Your task to perform on an android device: Open Reddit.com Image 0: 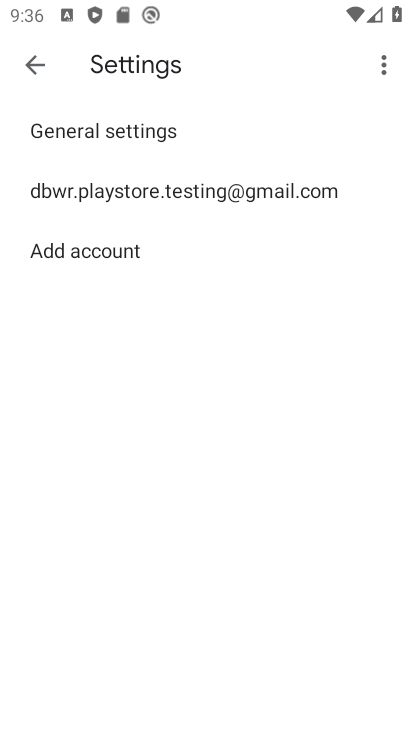
Step 0: press home button
Your task to perform on an android device: Open Reddit.com Image 1: 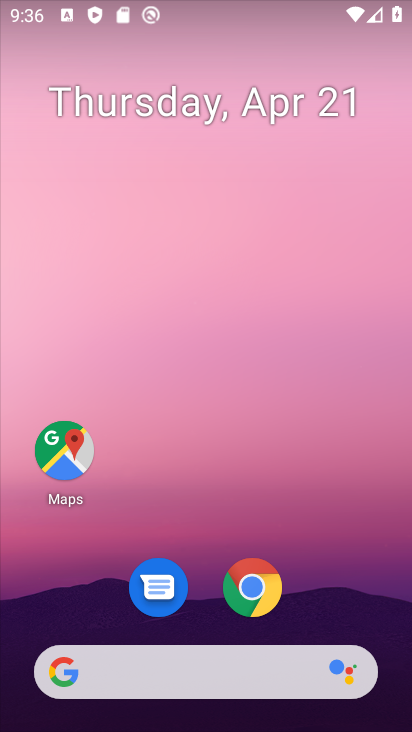
Step 1: click (253, 586)
Your task to perform on an android device: Open Reddit.com Image 2: 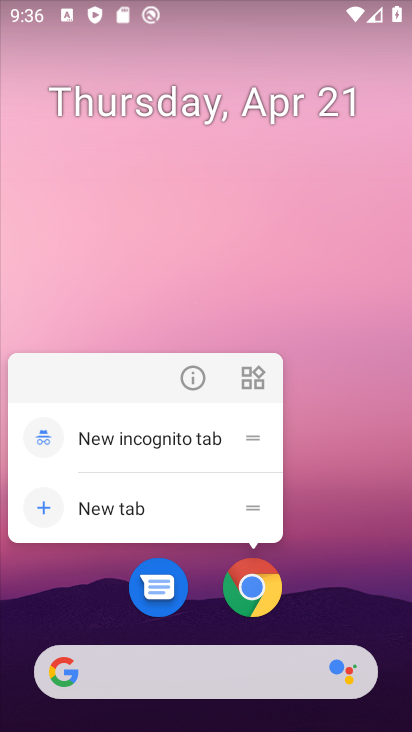
Step 2: click (202, 375)
Your task to perform on an android device: Open Reddit.com Image 3: 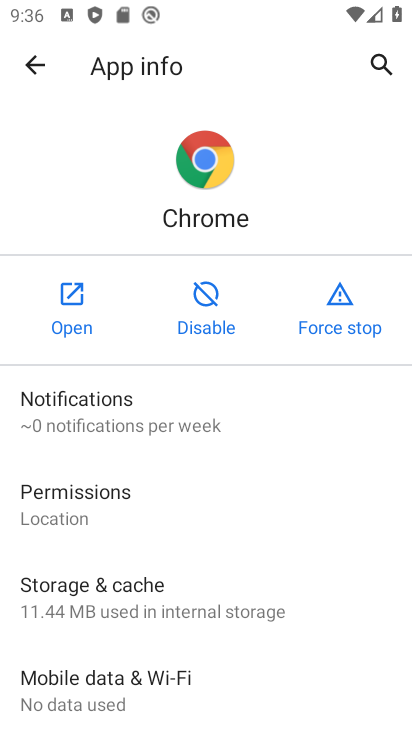
Step 3: click (70, 316)
Your task to perform on an android device: Open Reddit.com Image 4: 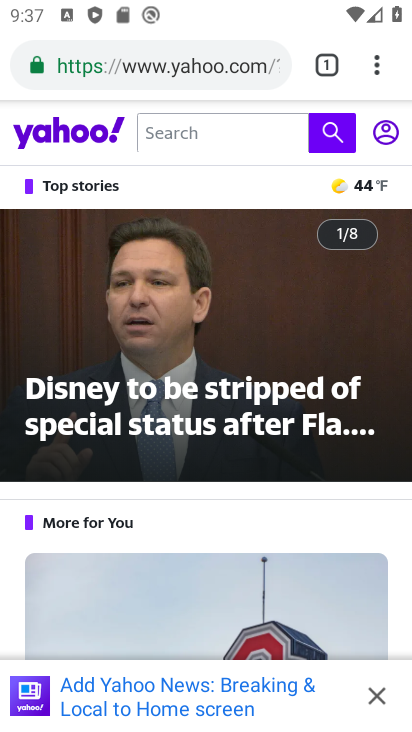
Step 4: click (330, 70)
Your task to perform on an android device: Open Reddit.com Image 5: 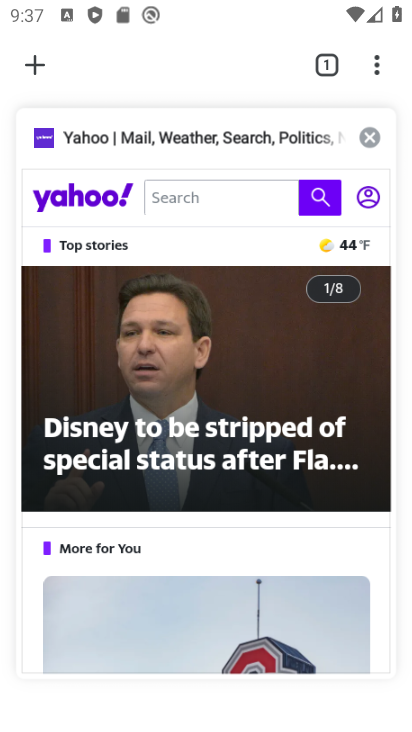
Step 5: click (321, 61)
Your task to perform on an android device: Open Reddit.com Image 6: 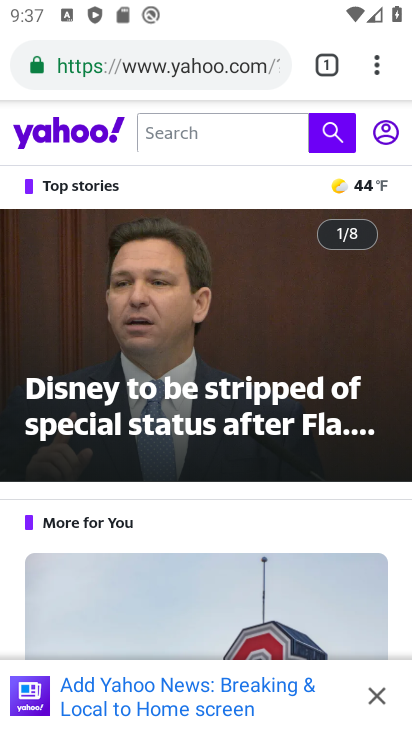
Step 6: click (328, 70)
Your task to perform on an android device: Open Reddit.com Image 7: 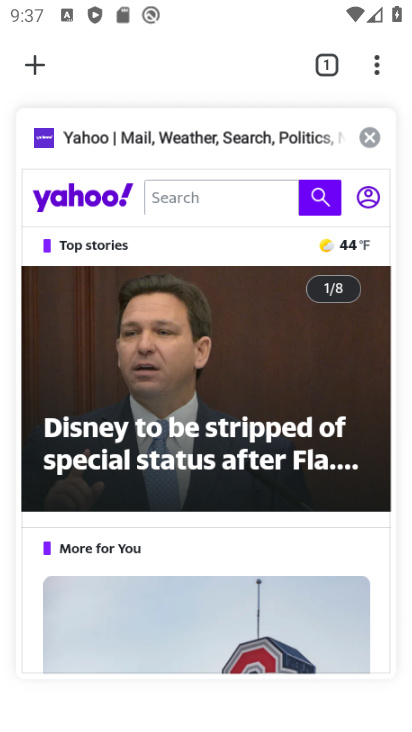
Step 7: click (375, 134)
Your task to perform on an android device: Open Reddit.com Image 8: 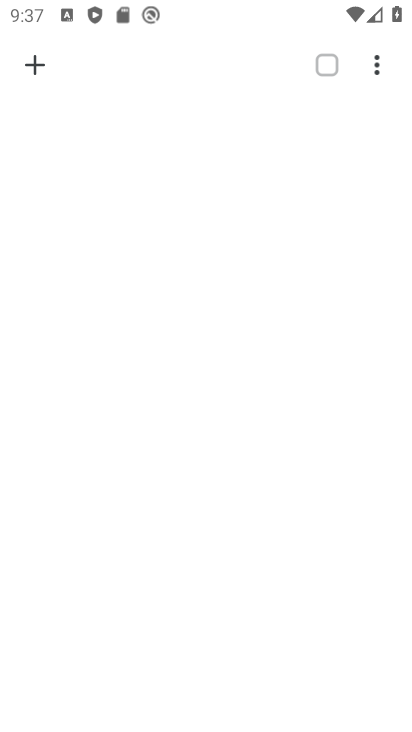
Step 8: click (30, 64)
Your task to perform on an android device: Open Reddit.com Image 9: 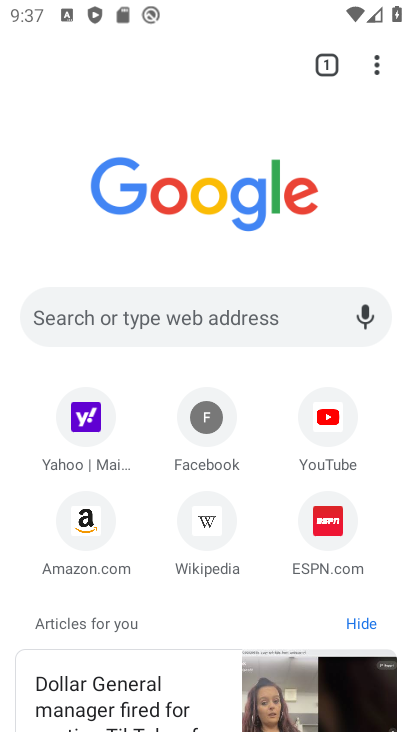
Step 9: click (208, 318)
Your task to perform on an android device: Open Reddit.com Image 10: 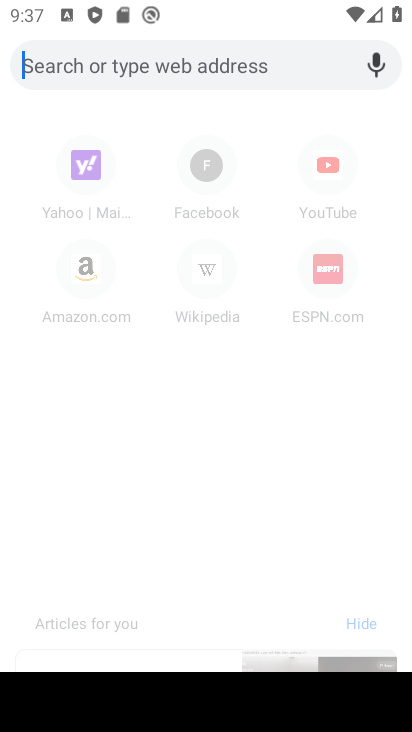
Step 10: type "Reddit.com"
Your task to perform on an android device: Open Reddit.com Image 11: 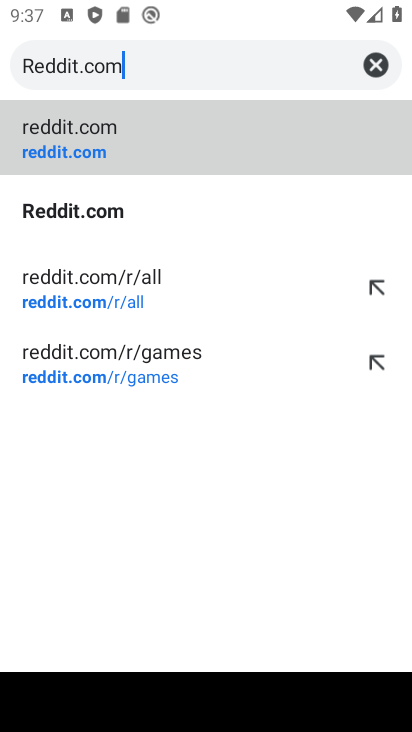
Step 11: type ""
Your task to perform on an android device: Open Reddit.com Image 12: 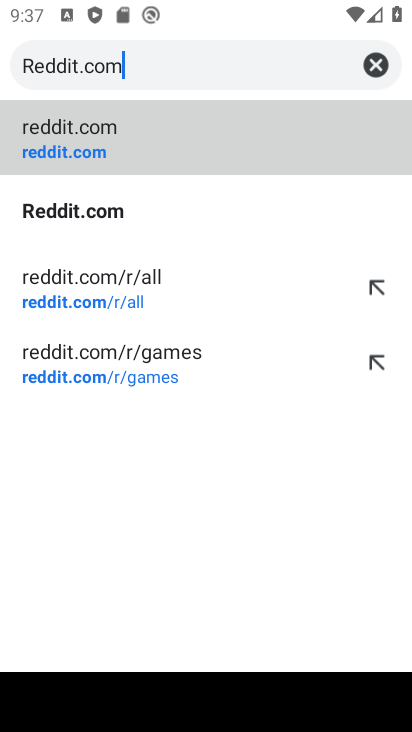
Step 12: click (84, 134)
Your task to perform on an android device: Open Reddit.com Image 13: 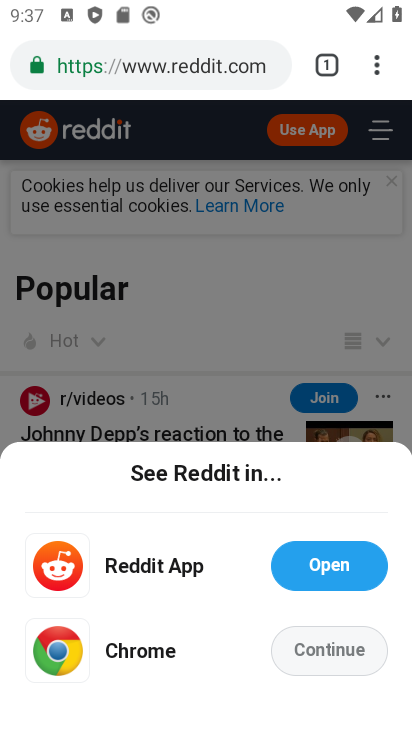
Step 13: task complete